Your task to perform on an android device: remove spam from my inbox in the gmail app Image 0: 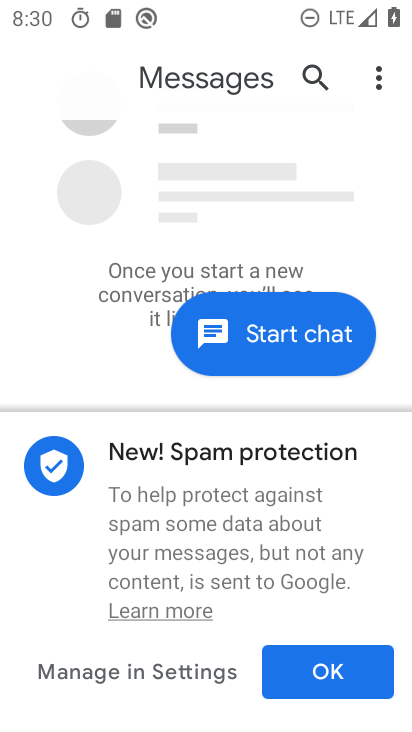
Step 0: press home button
Your task to perform on an android device: remove spam from my inbox in the gmail app Image 1: 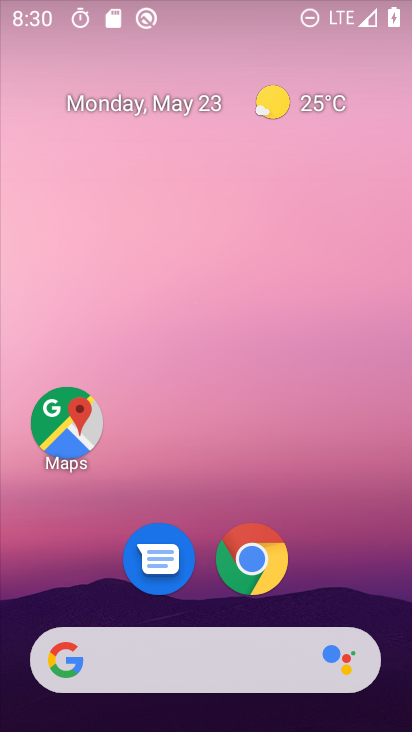
Step 1: drag from (395, 624) to (306, 39)
Your task to perform on an android device: remove spam from my inbox in the gmail app Image 2: 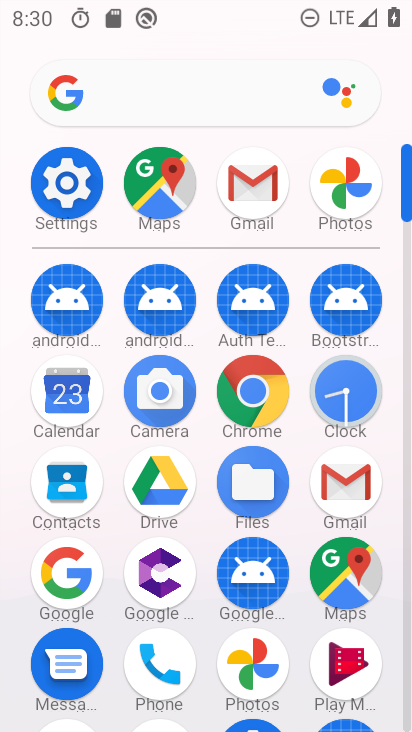
Step 2: click (342, 486)
Your task to perform on an android device: remove spam from my inbox in the gmail app Image 3: 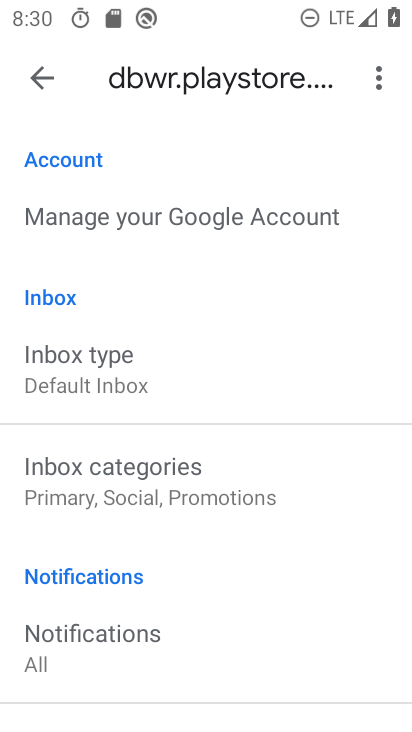
Step 3: press back button
Your task to perform on an android device: remove spam from my inbox in the gmail app Image 4: 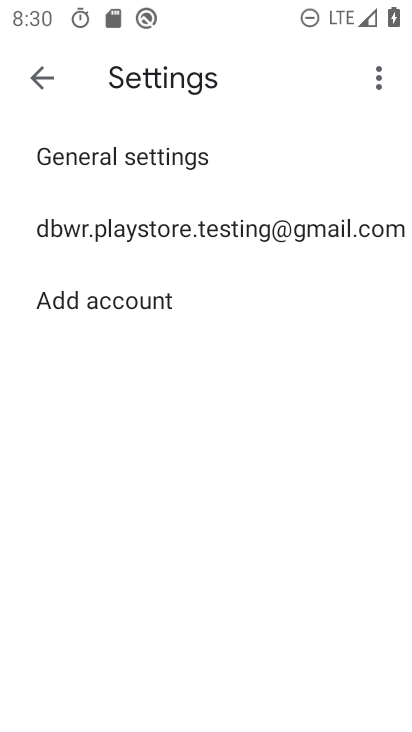
Step 4: press back button
Your task to perform on an android device: remove spam from my inbox in the gmail app Image 5: 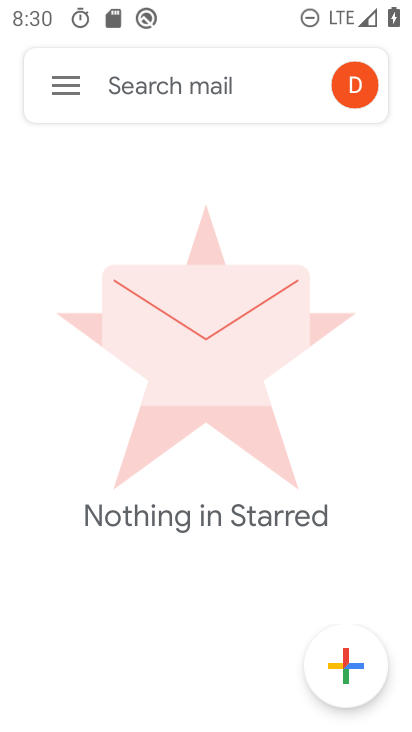
Step 5: click (51, 97)
Your task to perform on an android device: remove spam from my inbox in the gmail app Image 6: 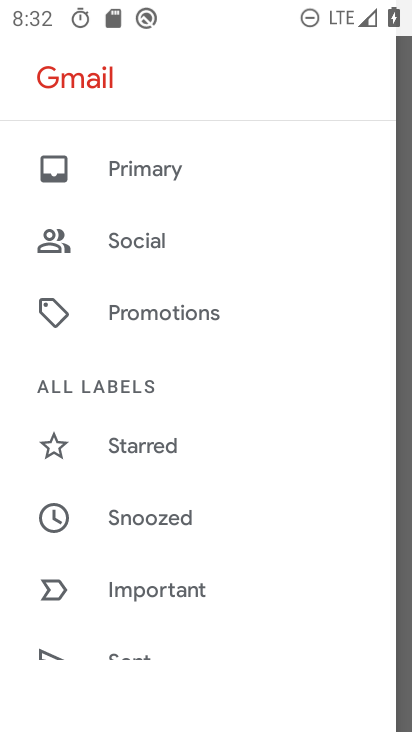
Step 6: task complete